Your task to perform on an android device: Open Google Image 0: 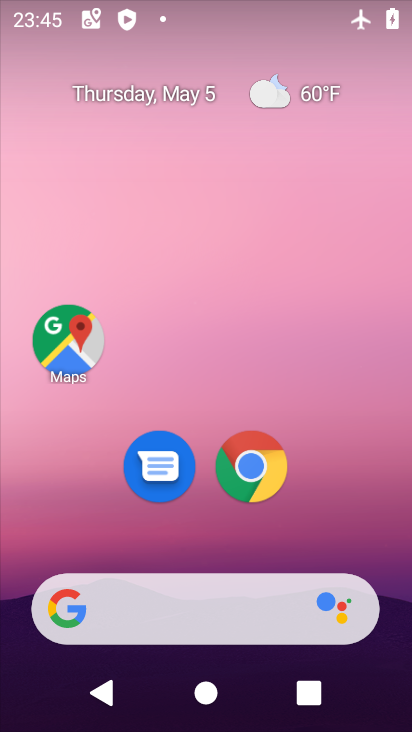
Step 0: drag from (237, 493) to (302, 146)
Your task to perform on an android device: Open Google Image 1: 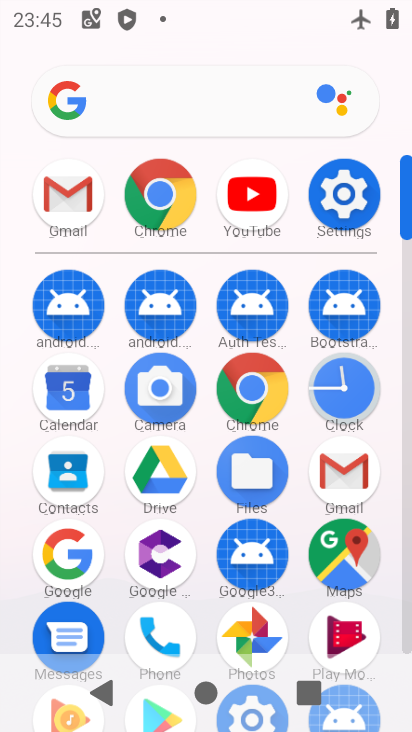
Step 1: click (57, 556)
Your task to perform on an android device: Open Google Image 2: 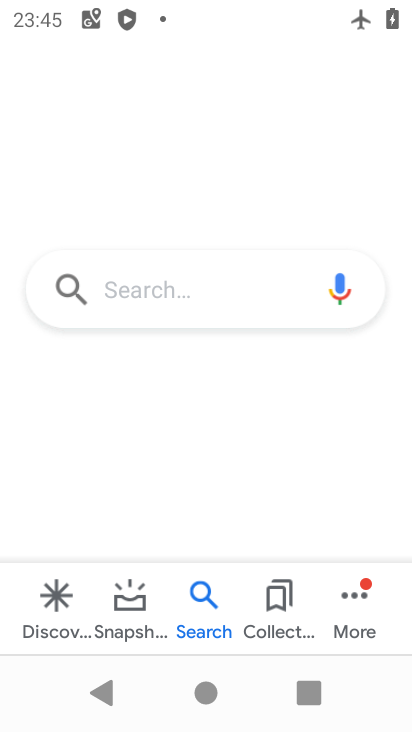
Step 2: drag from (201, 559) to (264, 120)
Your task to perform on an android device: Open Google Image 3: 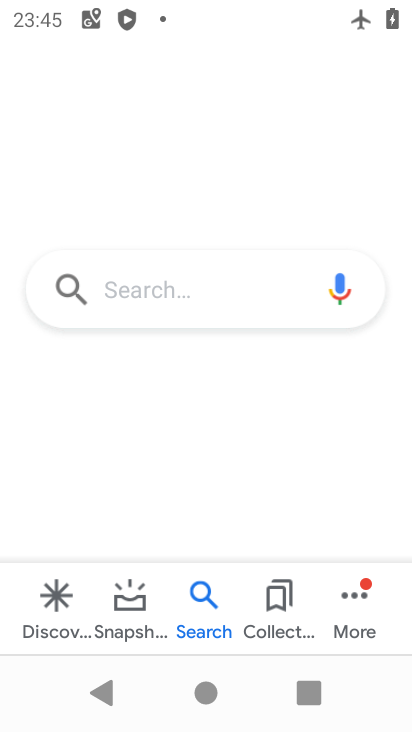
Step 3: drag from (161, 552) to (251, 155)
Your task to perform on an android device: Open Google Image 4: 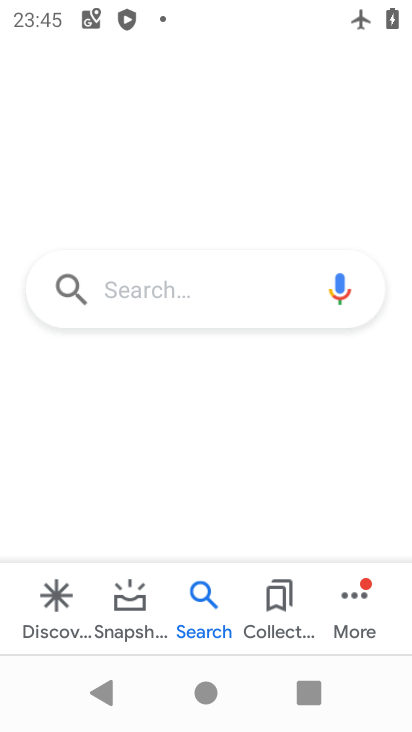
Step 4: drag from (183, 521) to (270, 57)
Your task to perform on an android device: Open Google Image 5: 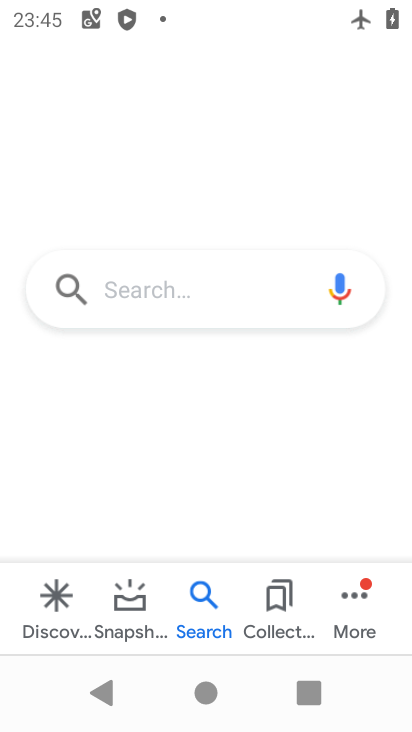
Step 5: press home button
Your task to perform on an android device: Open Google Image 6: 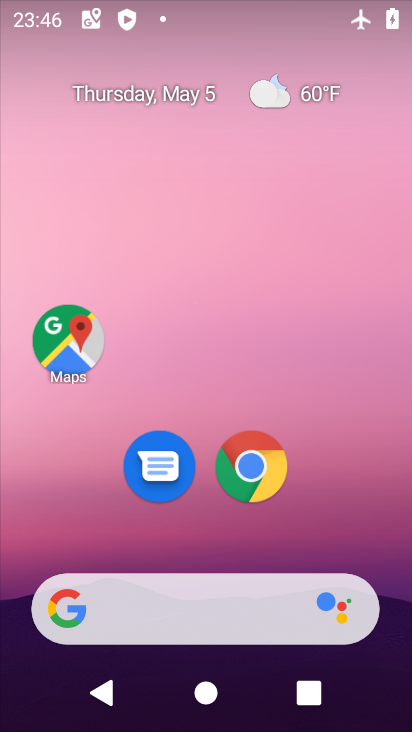
Step 6: drag from (214, 568) to (374, 217)
Your task to perform on an android device: Open Google Image 7: 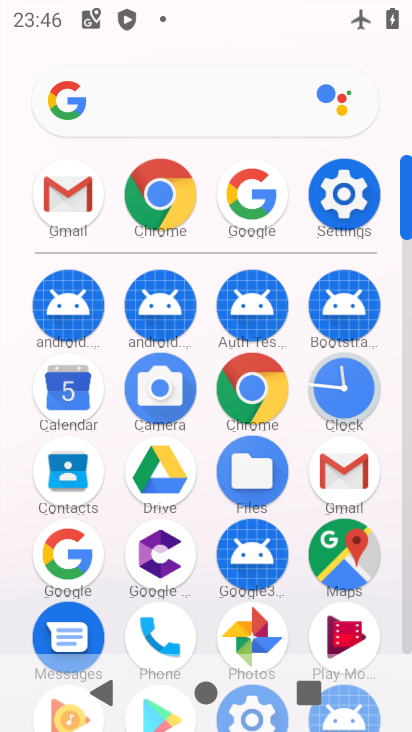
Step 7: click (30, 551)
Your task to perform on an android device: Open Google Image 8: 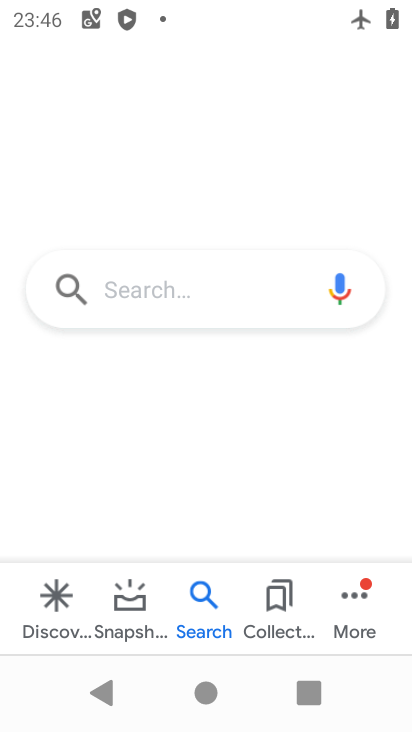
Step 8: task complete